Your task to perform on an android device: Open the calendar and show me this week's events Image 0: 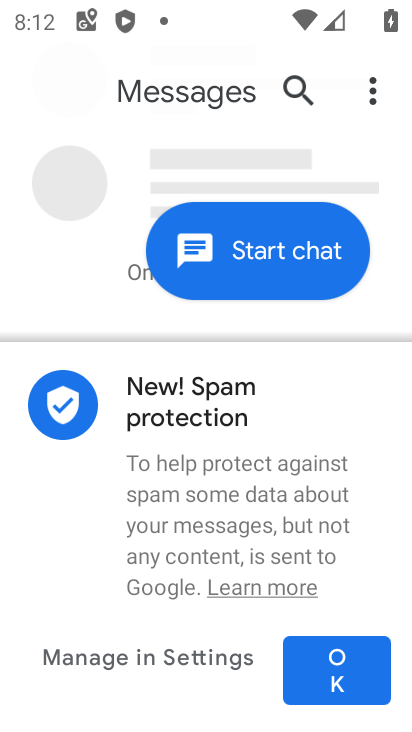
Step 0: click (237, 528)
Your task to perform on an android device: Open the calendar and show me this week's events Image 1: 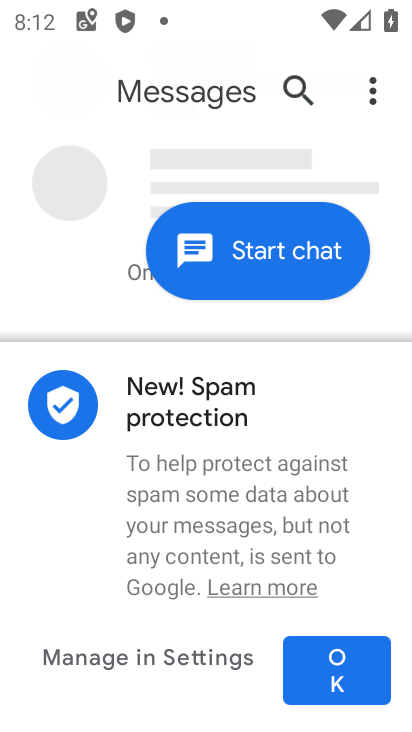
Step 1: press home button
Your task to perform on an android device: Open the calendar and show me this week's events Image 2: 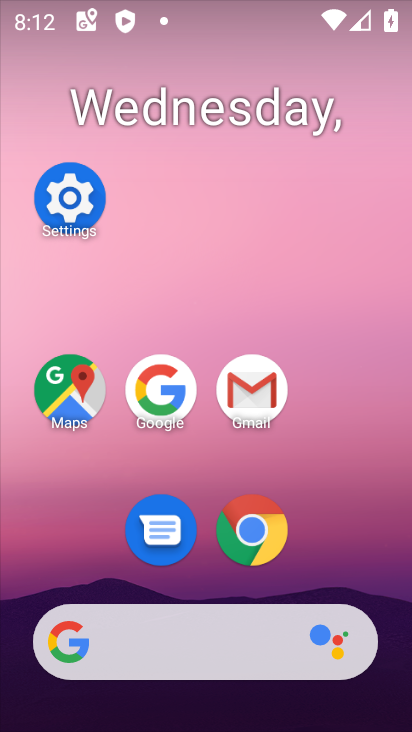
Step 2: drag from (320, 442) to (280, 70)
Your task to perform on an android device: Open the calendar and show me this week's events Image 3: 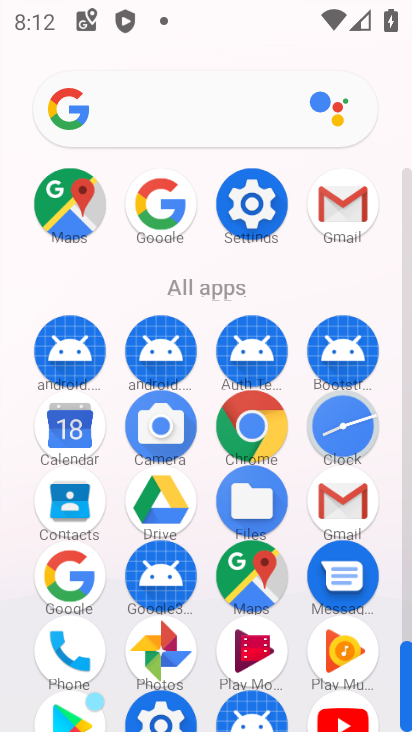
Step 3: drag from (60, 423) to (167, 221)
Your task to perform on an android device: Open the calendar and show me this week's events Image 4: 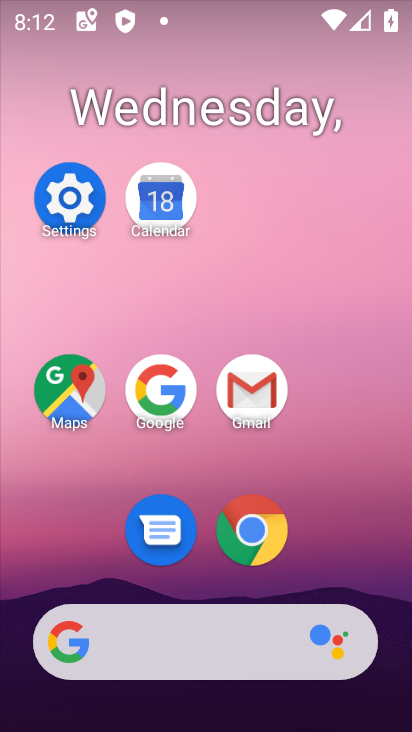
Step 4: click (167, 221)
Your task to perform on an android device: Open the calendar and show me this week's events Image 5: 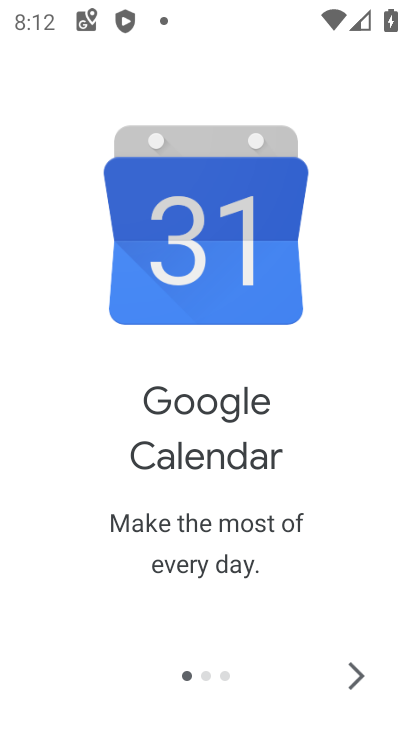
Step 5: click (353, 677)
Your task to perform on an android device: Open the calendar and show me this week's events Image 6: 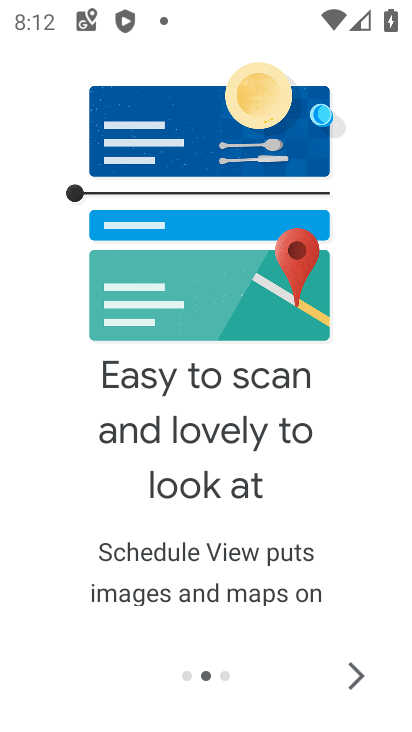
Step 6: click (353, 677)
Your task to perform on an android device: Open the calendar and show me this week's events Image 7: 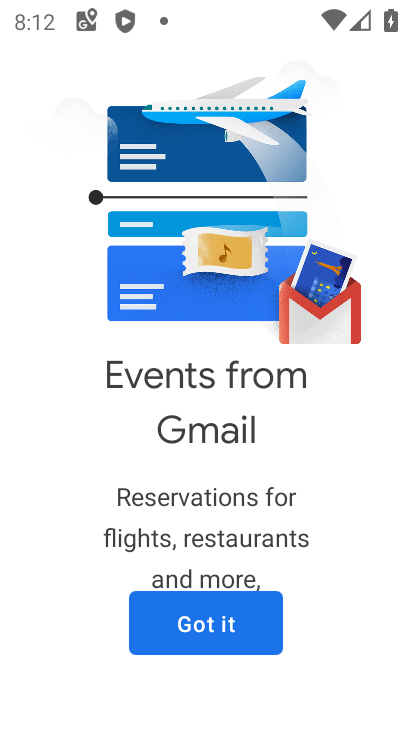
Step 7: click (246, 638)
Your task to perform on an android device: Open the calendar and show me this week's events Image 8: 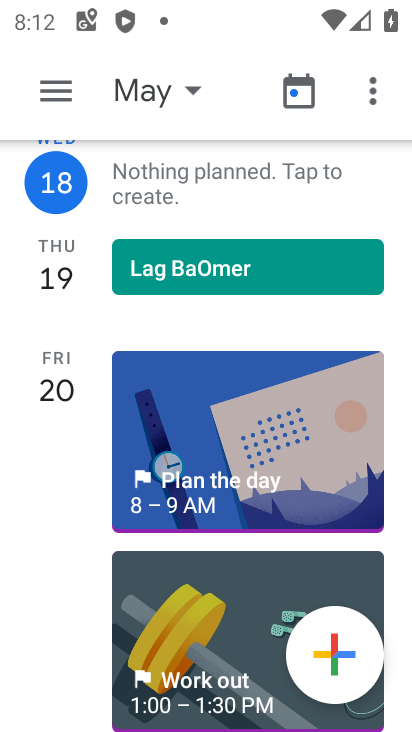
Step 8: click (52, 102)
Your task to perform on an android device: Open the calendar and show me this week's events Image 9: 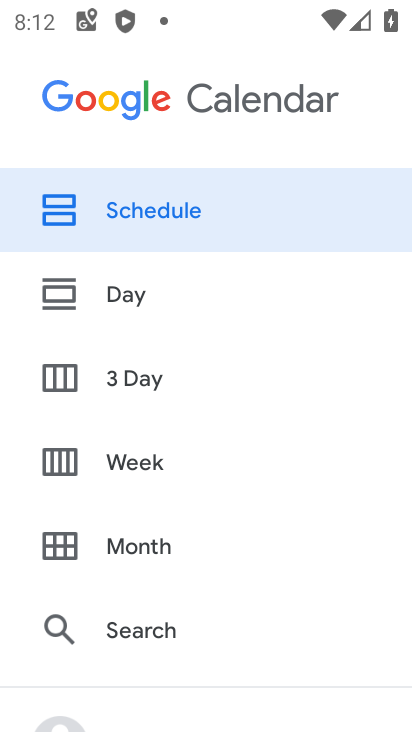
Step 9: click (189, 482)
Your task to perform on an android device: Open the calendar and show me this week's events Image 10: 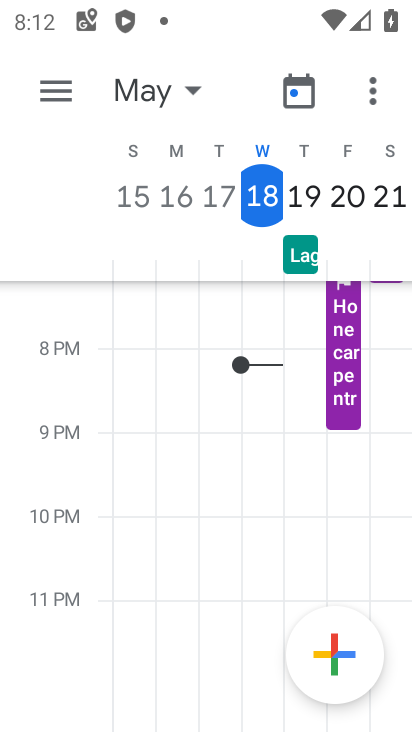
Step 10: task complete